Your task to perform on an android device: Open Yahoo.com Image 0: 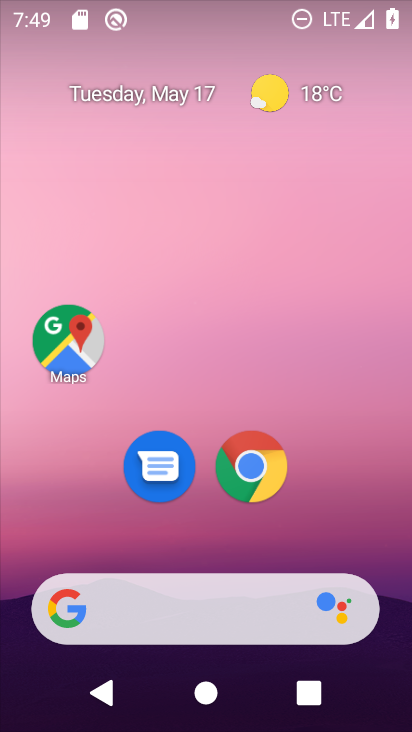
Step 0: press home button
Your task to perform on an android device: Open Yahoo.com Image 1: 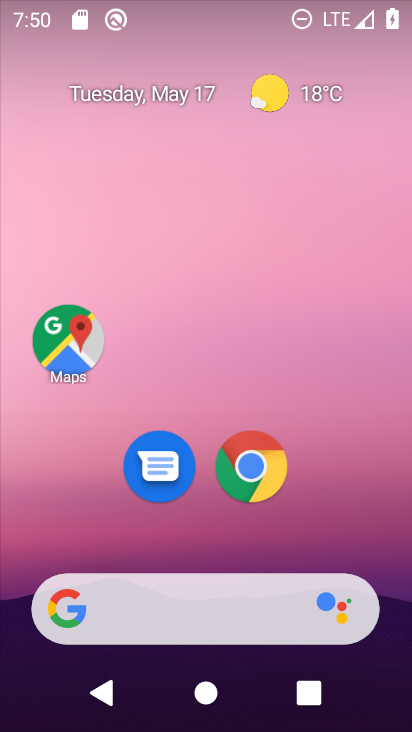
Step 1: click (248, 464)
Your task to perform on an android device: Open Yahoo.com Image 2: 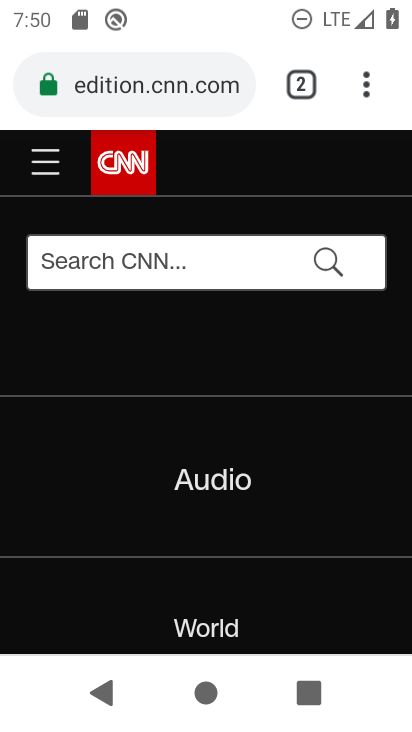
Step 2: drag from (364, 99) to (247, 159)
Your task to perform on an android device: Open Yahoo.com Image 3: 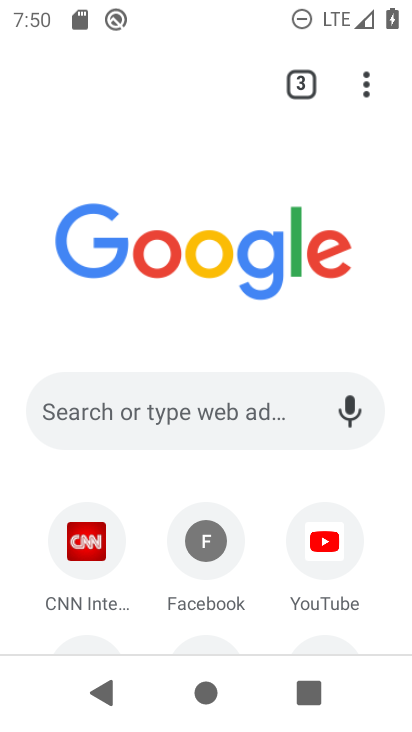
Step 3: drag from (255, 507) to (303, 159)
Your task to perform on an android device: Open Yahoo.com Image 4: 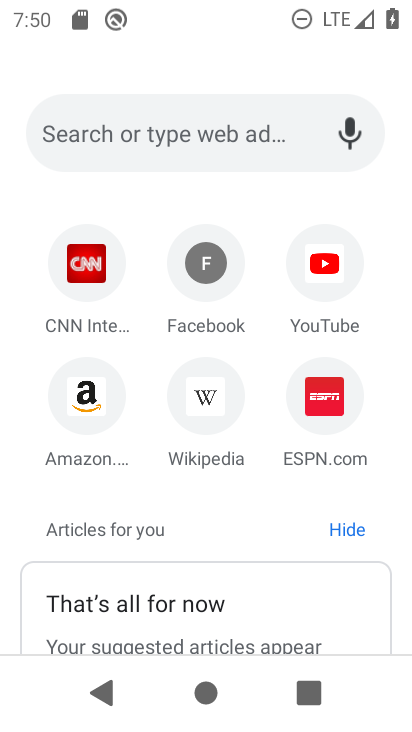
Step 4: click (146, 127)
Your task to perform on an android device: Open Yahoo.com Image 5: 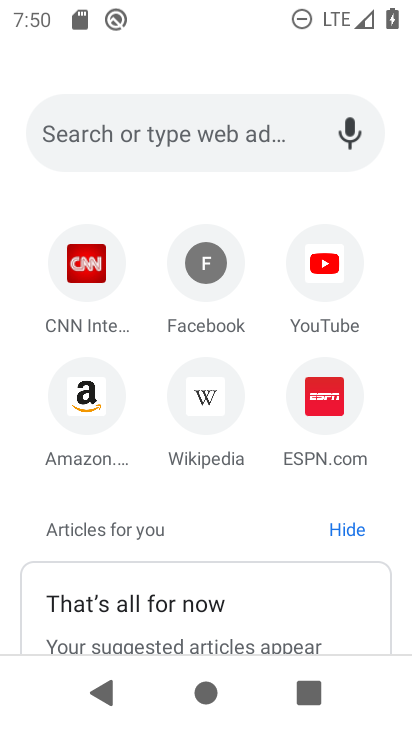
Step 5: click (190, 135)
Your task to perform on an android device: Open Yahoo.com Image 6: 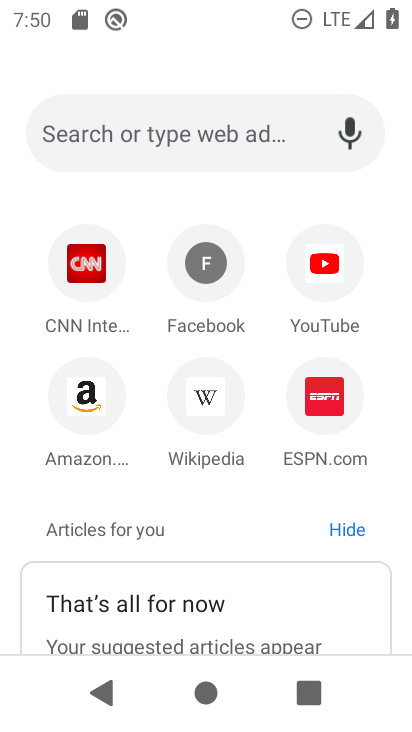
Step 6: drag from (284, 198) to (246, 509)
Your task to perform on an android device: Open Yahoo.com Image 7: 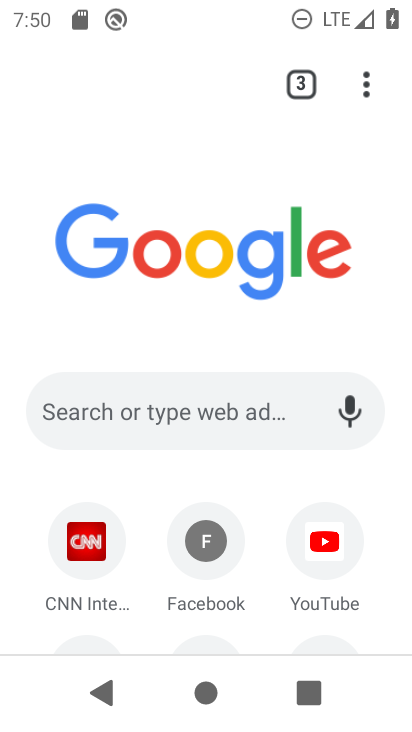
Step 7: click (91, 411)
Your task to perform on an android device: Open Yahoo.com Image 8: 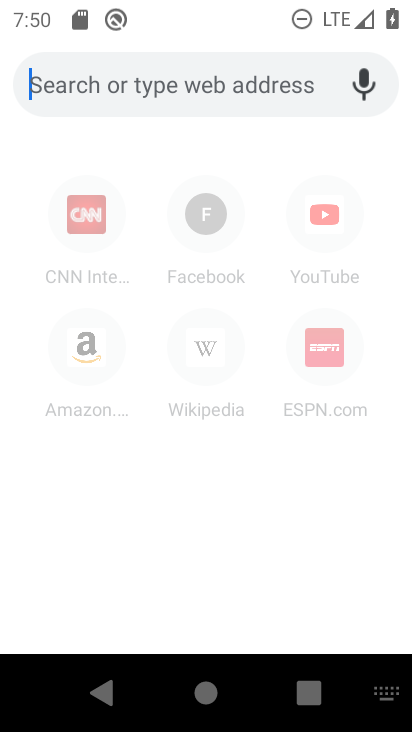
Step 8: type "yahoo.com"
Your task to perform on an android device: Open Yahoo.com Image 9: 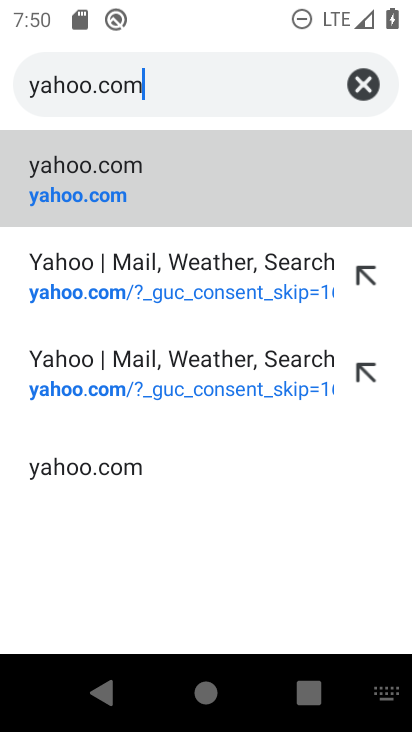
Step 9: click (72, 191)
Your task to perform on an android device: Open Yahoo.com Image 10: 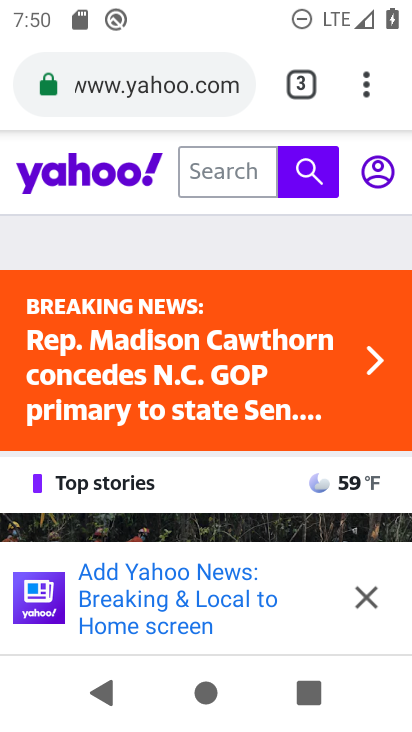
Step 10: task complete